Your task to perform on an android device: turn smart compose on in the gmail app Image 0: 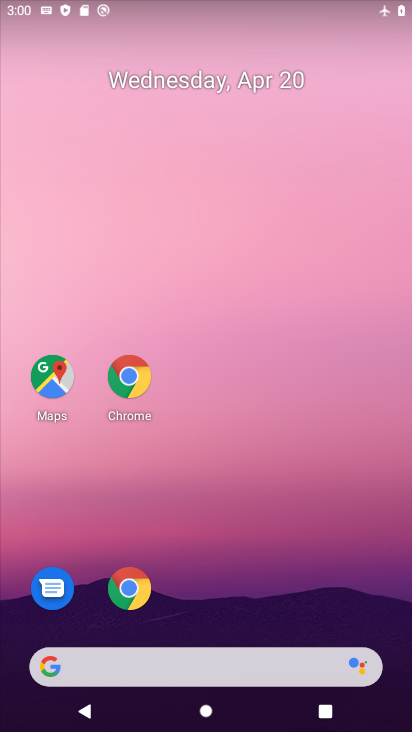
Step 0: drag from (269, 629) to (307, 35)
Your task to perform on an android device: turn smart compose on in the gmail app Image 1: 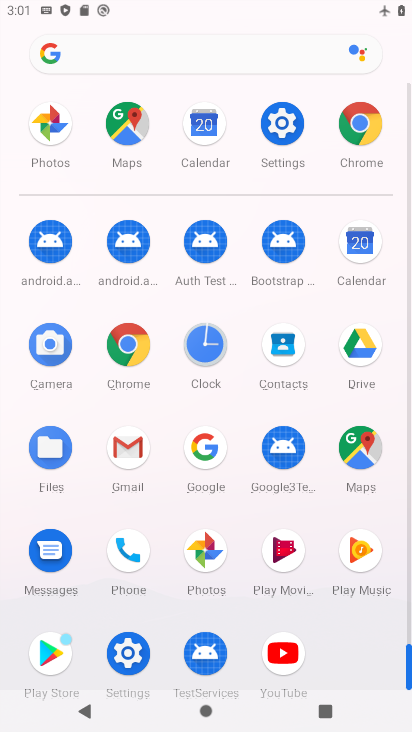
Step 1: click (110, 445)
Your task to perform on an android device: turn smart compose on in the gmail app Image 2: 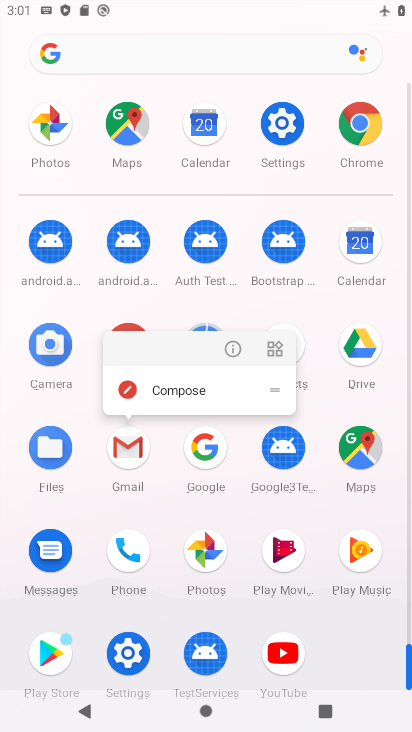
Step 2: click (124, 453)
Your task to perform on an android device: turn smart compose on in the gmail app Image 3: 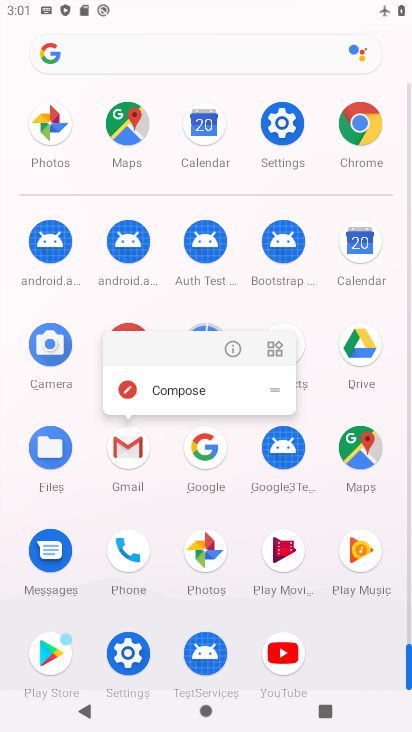
Step 3: click (123, 453)
Your task to perform on an android device: turn smart compose on in the gmail app Image 4: 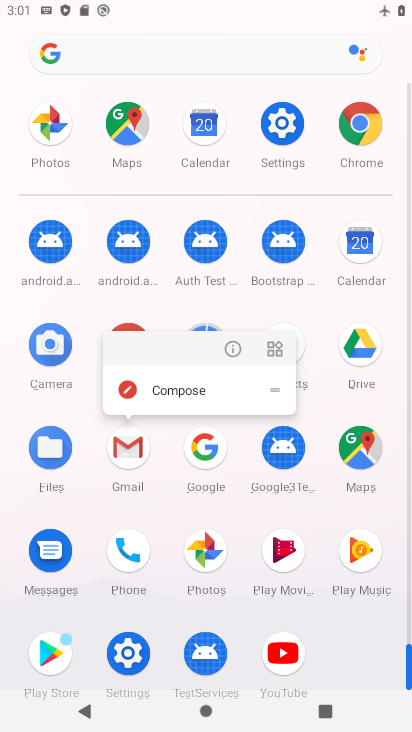
Step 4: click (123, 453)
Your task to perform on an android device: turn smart compose on in the gmail app Image 5: 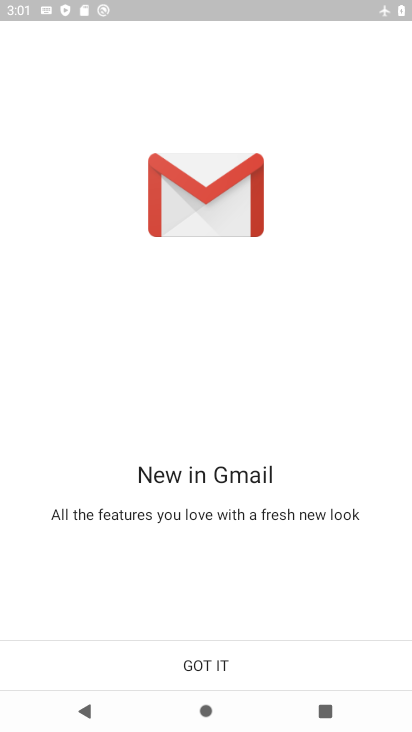
Step 5: click (225, 665)
Your task to perform on an android device: turn smart compose on in the gmail app Image 6: 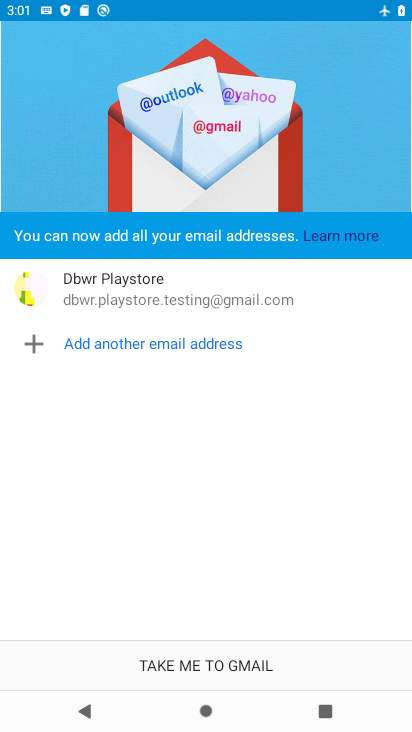
Step 6: click (225, 665)
Your task to perform on an android device: turn smart compose on in the gmail app Image 7: 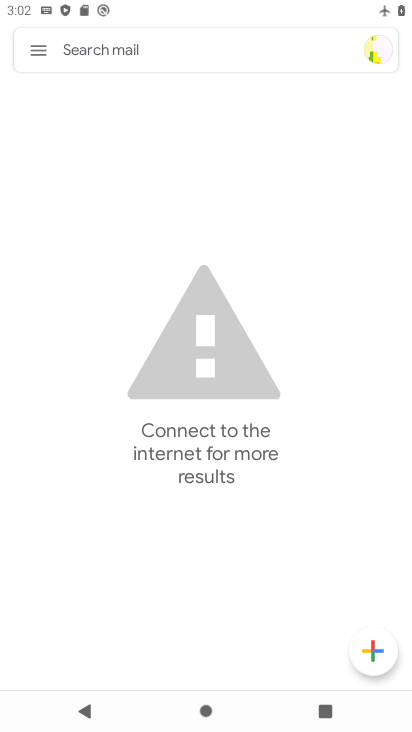
Step 7: click (34, 46)
Your task to perform on an android device: turn smart compose on in the gmail app Image 8: 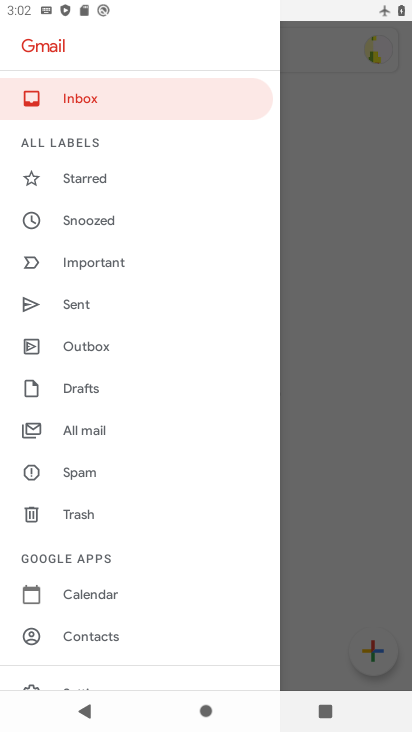
Step 8: drag from (141, 602) to (165, 133)
Your task to perform on an android device: turn smart compose on in the gmail app Image 9: 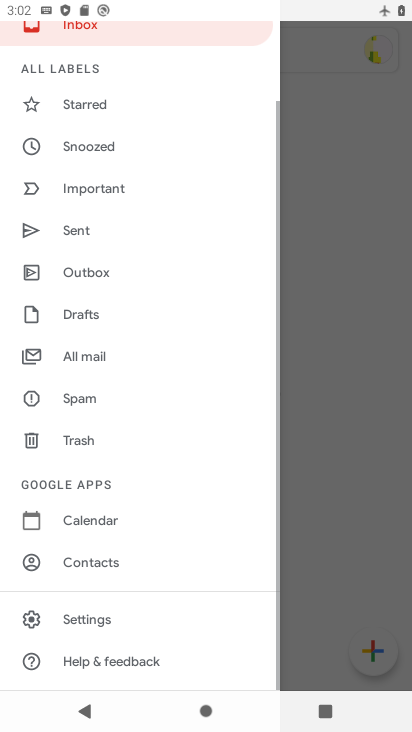
Step 9: click (134, 622)
Your task to perform on an android device: turn smart compose on in the gmail app Image 10: 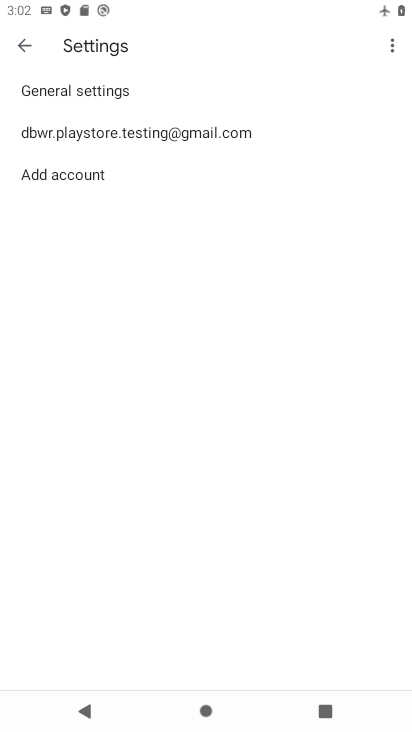
Step 10: click (69, 132)
Your task to perform on an android device: turn smart compose on in the gmail app Image 11: 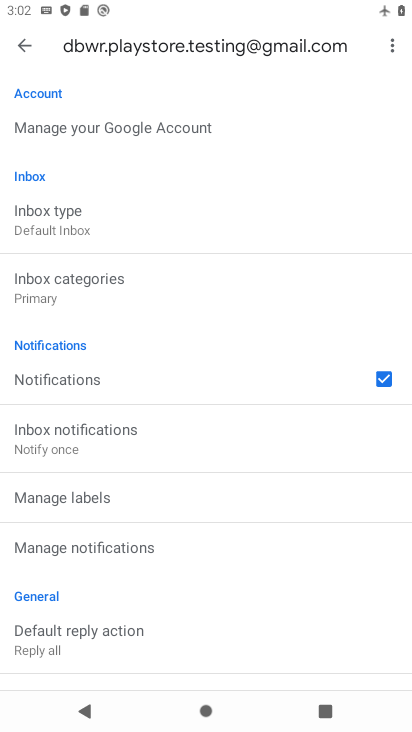
Step 11: task complete